Your task to perform on an android device: manage bookmarks in the chrome app Image 0: 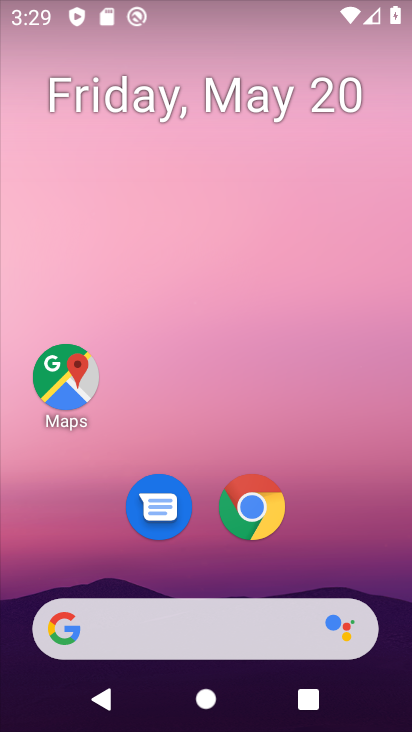
Step 0: click (252, 508)
Your task to perform on an android device: manage bookmarks in the chrome app Image 1: 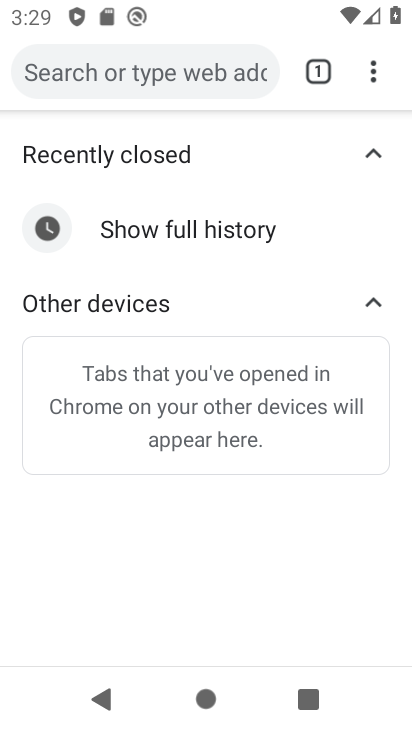
Step 1: click (372, 66)
Your task to perform on an android device: manage bookmarks in the chrome app Image 2: 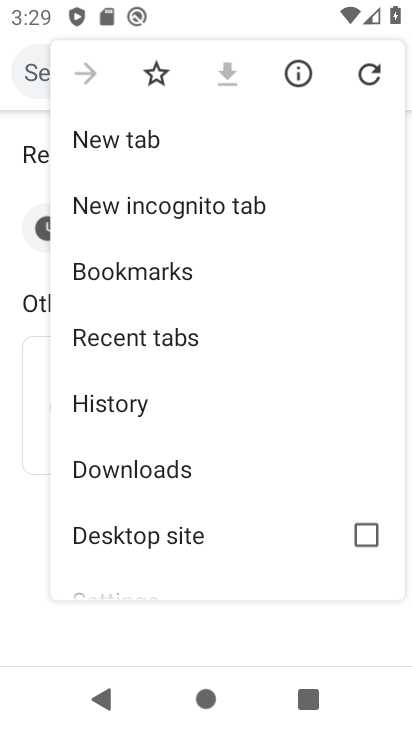
Step 2: drag from (172, 400) to (210, 302)
Your task to perform on an android device: manage bookmarks in the chrome app Image 3: 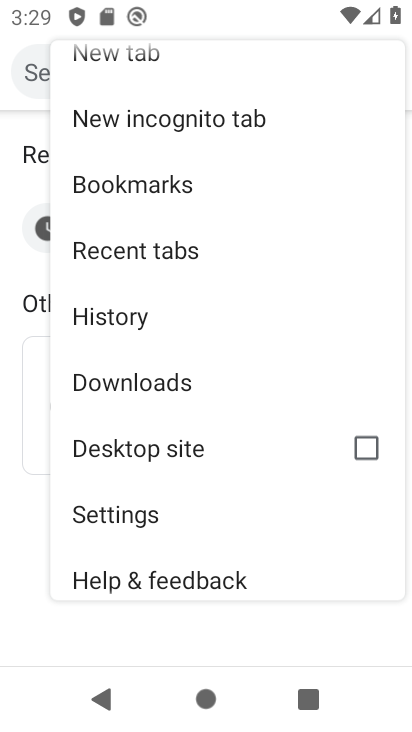
Step 3: click (124, 183)
Your task to perform on an android device: manage bookmarks in the chrome app Image 4: 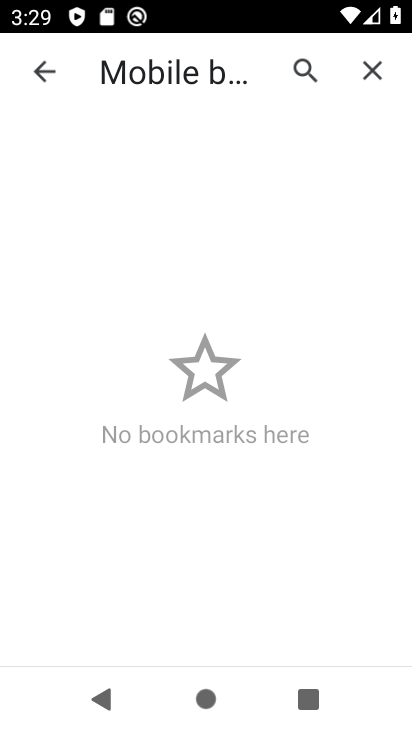
Step 4: task complete